Your task to perform on an android device: turn notification dots off Image 0: 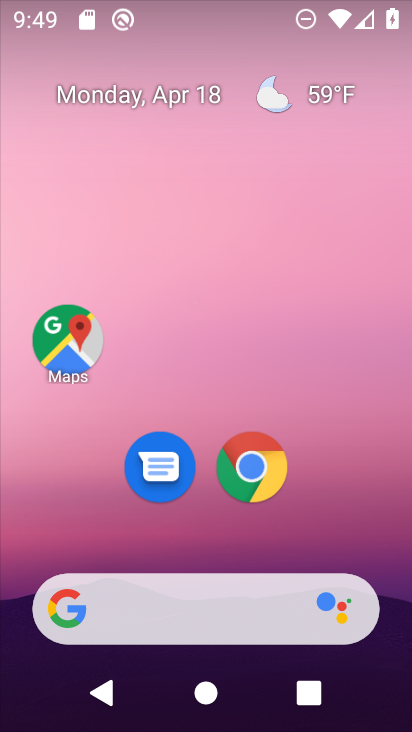
Step 0: drag from (249, 379) to (286, 87)
Your task to perform on an android device: turn notification dots off Image 1: 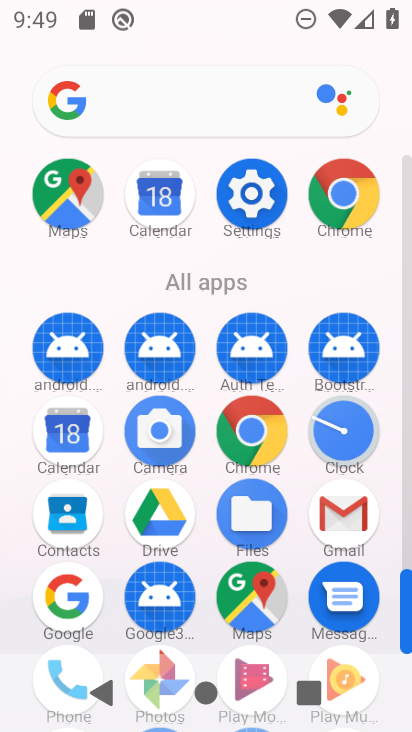
Step 1: click (253, 215)
Your task to perform on an android device: turn notification dots off Image 2: 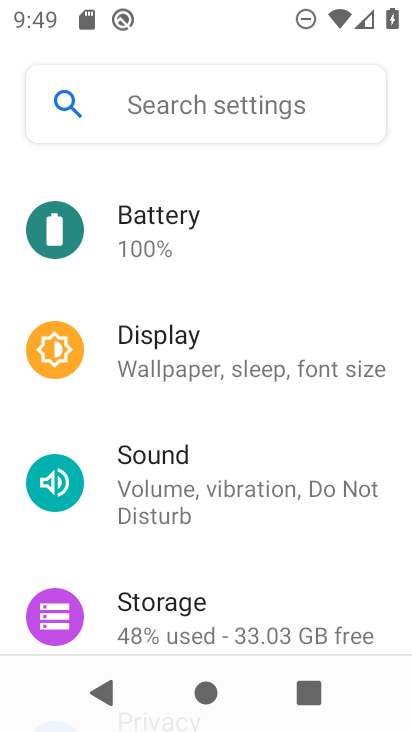
Step 2: drag from (193, 509) to (313, 105)
Your task to perform on an android device: turn notification dots off Image 3: 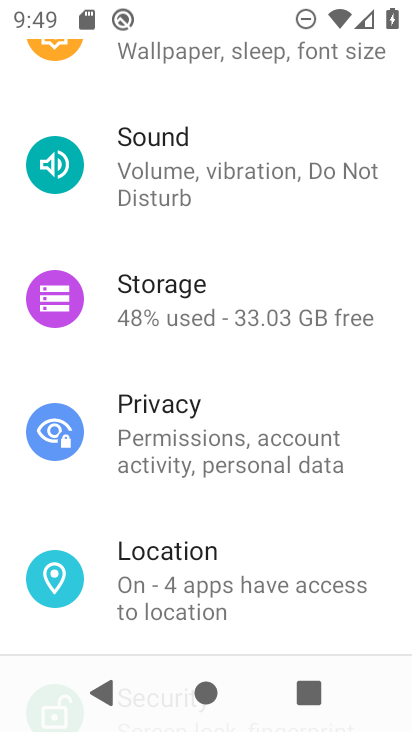
Step 3: drag from (210, 114) to (179, 534)
Your task to perform on an android device: turn notification dots off Image 4: 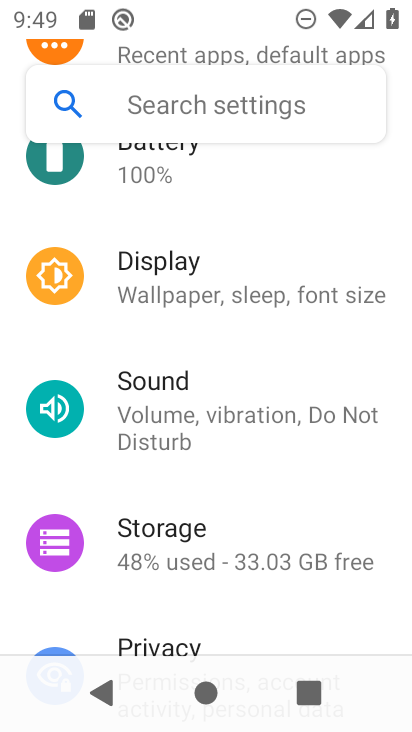
Step 4: drag from (183, 316) to (194, 609)
Your task to perform on an android device: turn notification dots off Image 5: 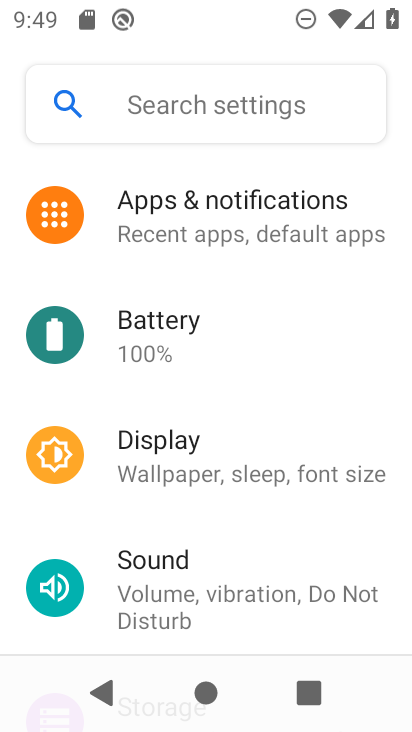
Step 5: click (246, 212)
Your task to perform on an android device: turn notification dots off Image 6: 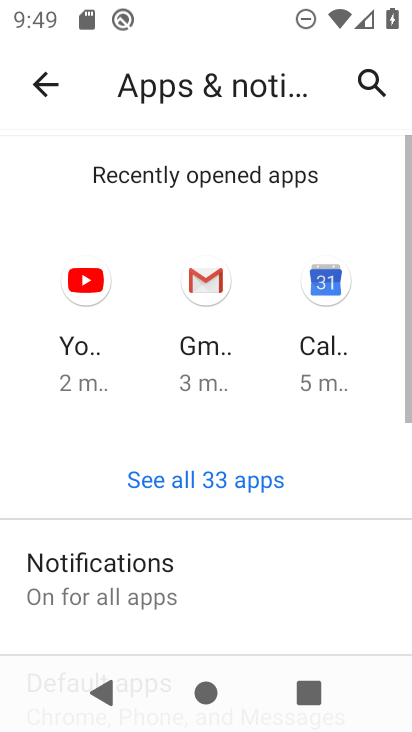
Step 6: drag from (188, 583) to (225, 234)
Your task to perform on an android device: turn notification dots off Image 7: 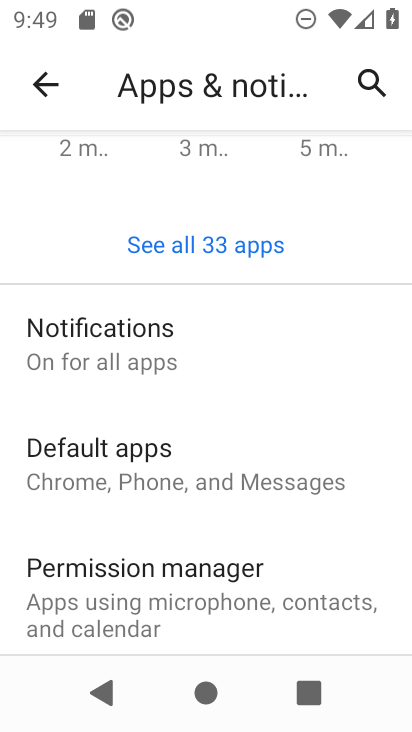
Step 7: drag from (167, 608) to (221, 258)
Your task to perform on an android device: turn notification dots off Image 8: 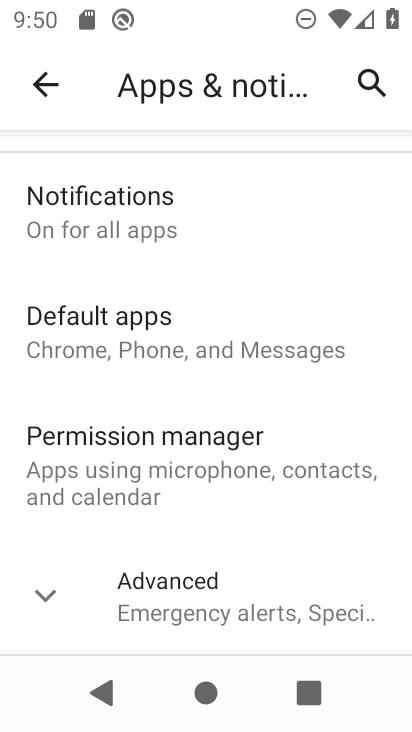
Step 8: click (178, 189)
Your task to perform on an android device: turn notification dots off Image 9: 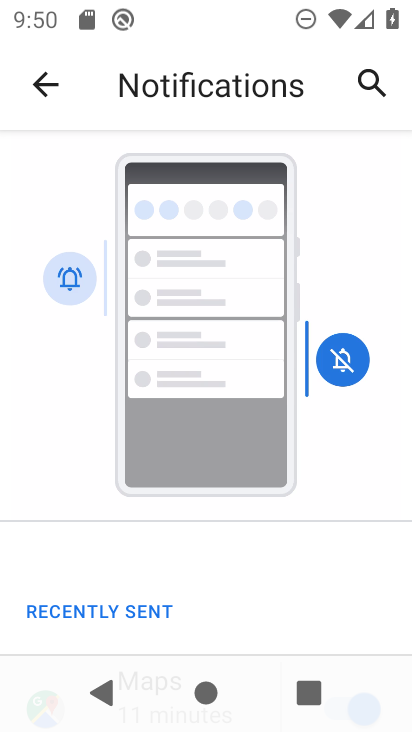
Step 9: drag from (159, 600) to (284, 91)
Your task to perform on an android device: turn notification dots off Image 10: 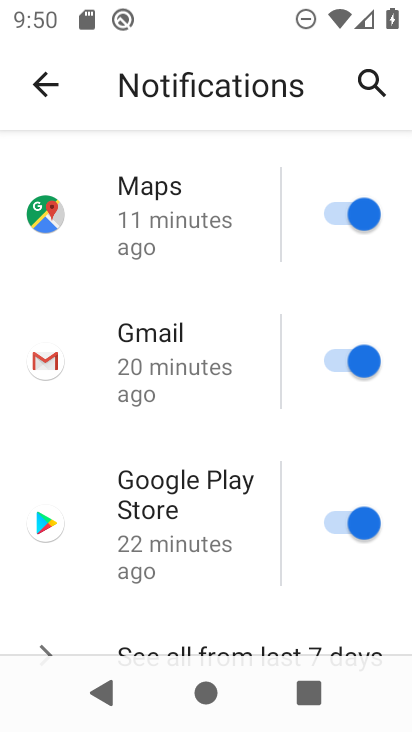
Step 10: drag from (226, 628) to (213, 304)
Your task to perform on an android device: turn notification dots off Image 11: 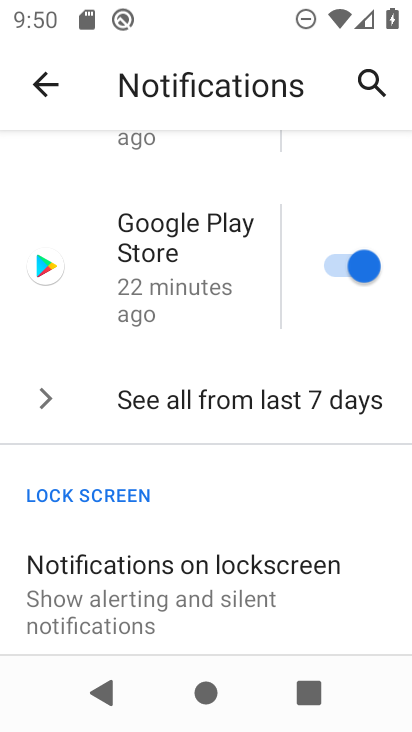
Step 11: drag from (198, 608) to (239, 205)
Your task to perform on an android device: turn notification dots off Image 12: 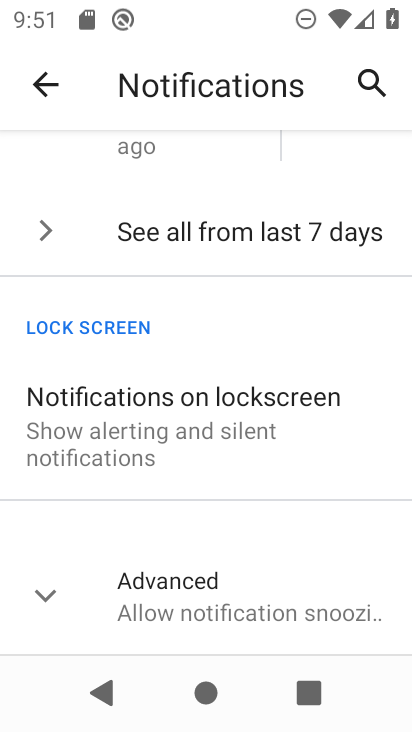
Step 12: click (220, 604)
Your task to perform on an android device: turn notification dots off Image 13: 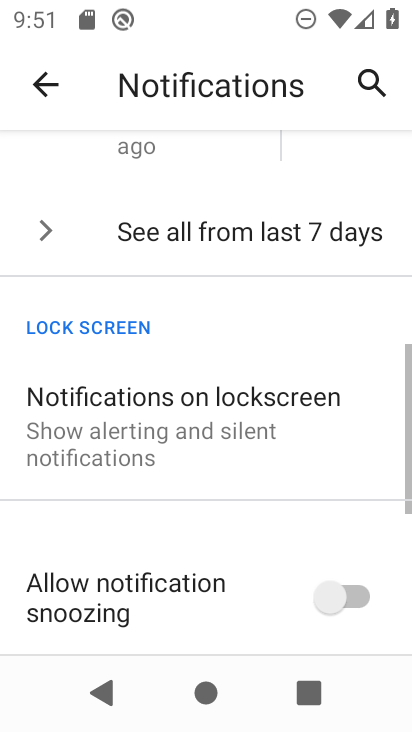
Step 13: drag from (220, 604) to (265, 79)
Your task to perform on an android device: turn notification dots off Image 14: 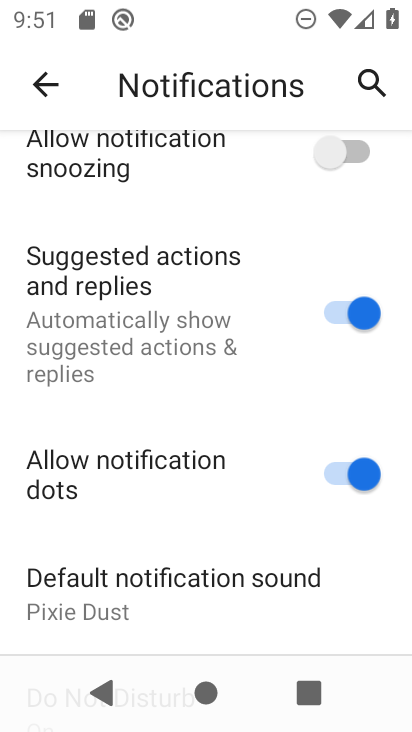
Step 14: click (346, 471)
Your task to perform on an android device: turn notification dots off Image 15: 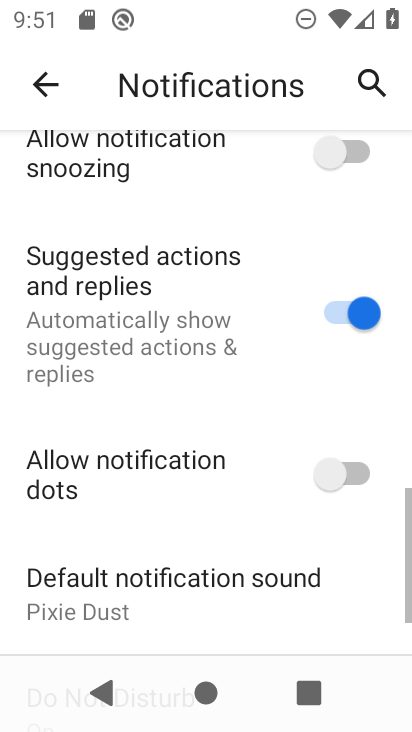
Step 15: task complete